Your task to perform on an android device: refresh tabs in the chrome app Image 0: 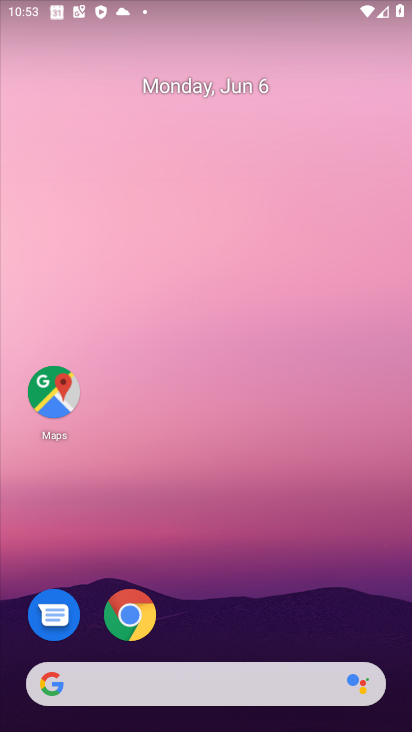
Step 0: click (136, 611)
Your task to perform on an android device: refresh tabs in the chrome app Image 1: 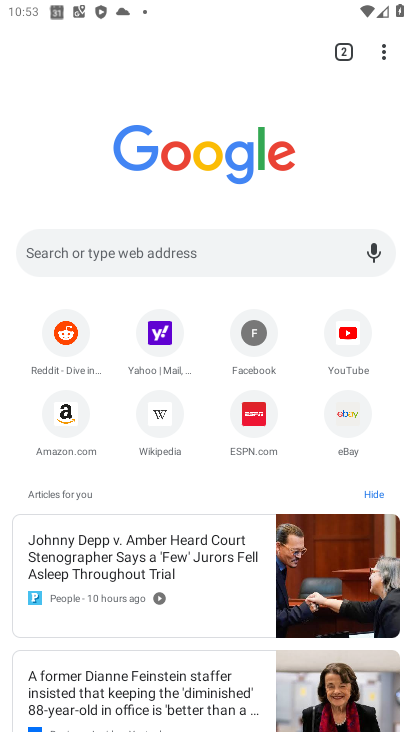
Step 1: click (383, 58)
Your task to perform on an android device: refresh tabs in the chrome app Image 2: 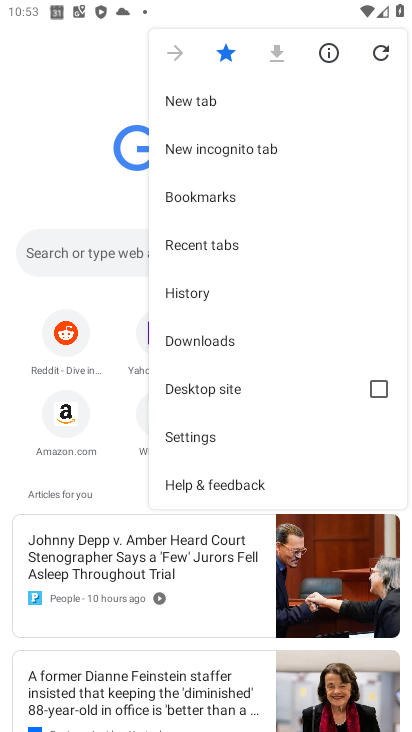
Step 2: click (370, 54)
Your task to perform on an android device: refresh tabs in the chrome app Image 3: 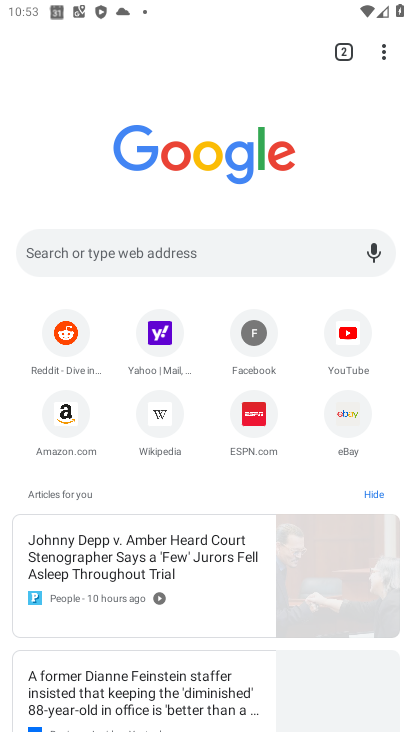
Step 3: task complete